Your task to perform on an android device: turn on airplane mode Image 0: 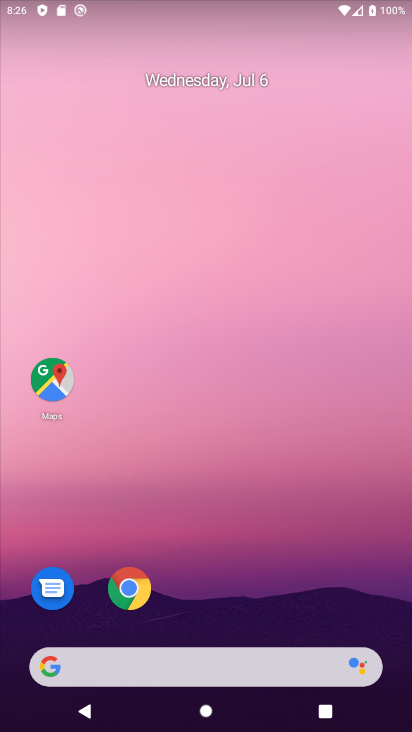
Step 0: drag from (221, 554) to (175, 113)
Your task to perform on an android device: turn on airplane mode Image 1: 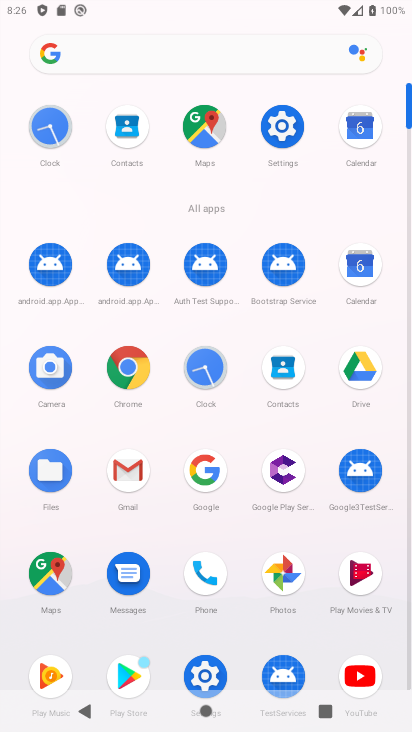
Step 1: click (275, 127)
Your task to perform on an android device: turn on airplane mode Image 2: 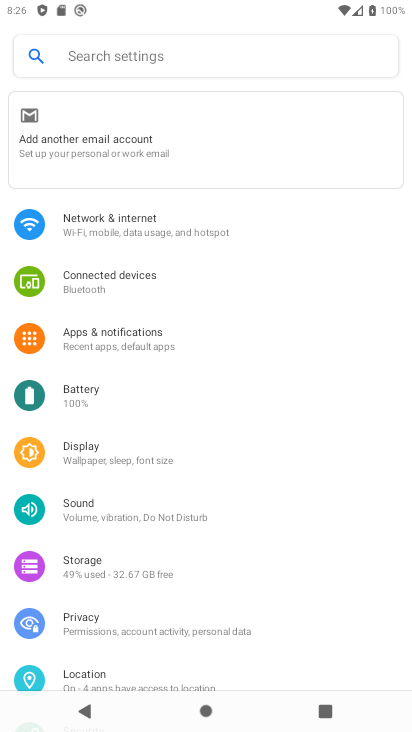
Step 2: click (108, 221)
Your task to perform on an android device: turn on airplane mode Image 3: 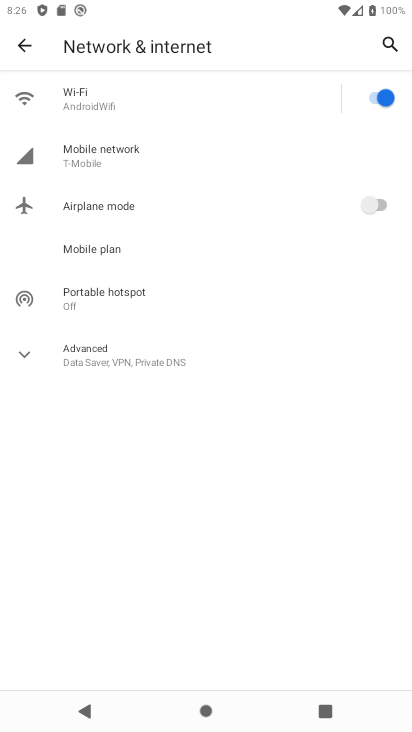
Step 3: click (370, 197)
Your task to perform on an android device: turn on airplane mode Image 4: 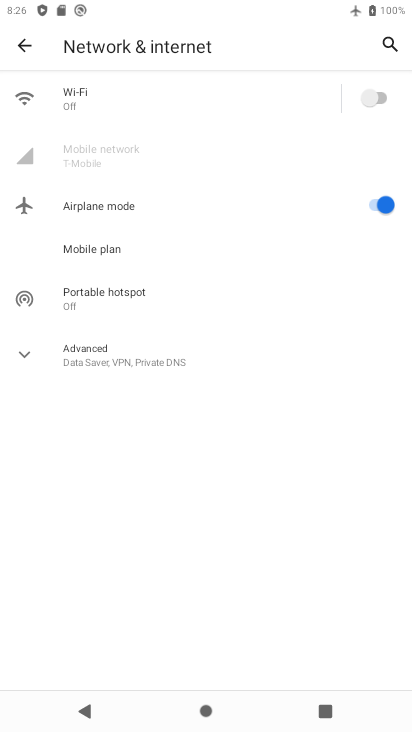
Step 4: task complete